Your task to perform on an android device: Open privacy settings Image 0: 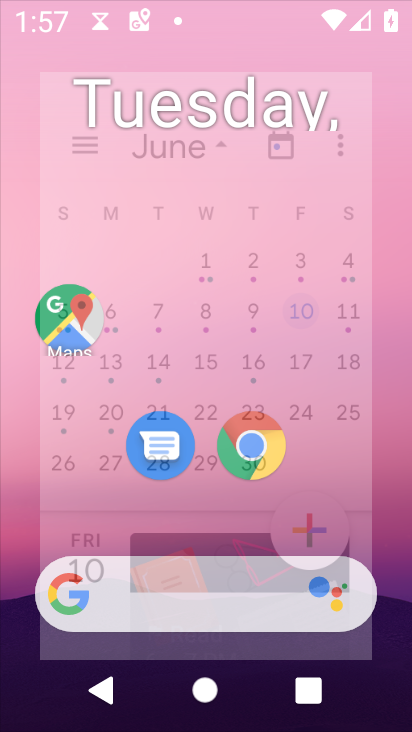
Step 0: drag from (253, 612) to (297, 55)
Your task to perform on an android device: Open privacy settings Image 1: 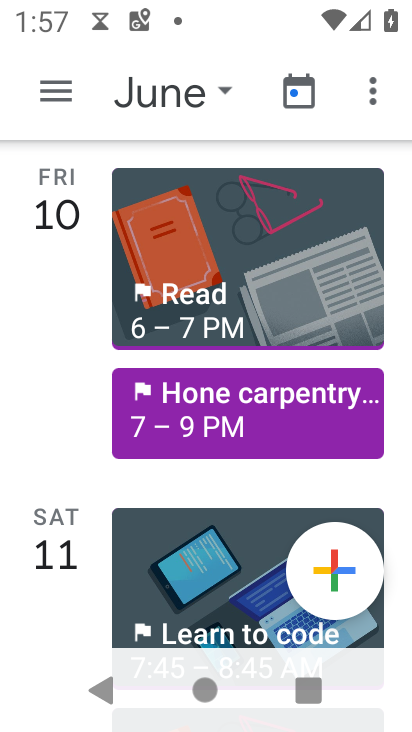
Step 1: press home button
Your task to perform on an android device: Open privacy settings Image 2: 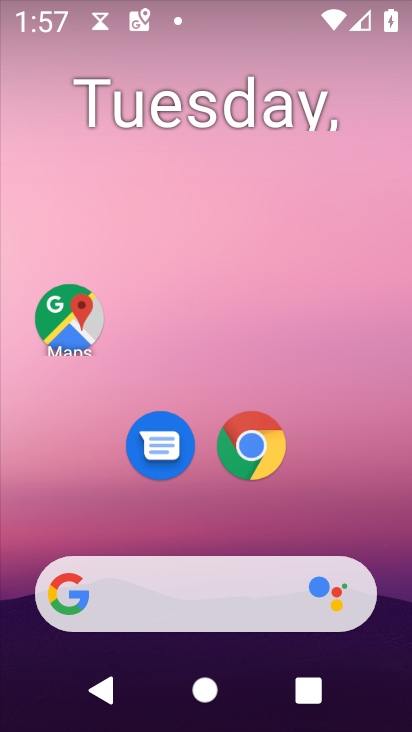
Step 2: drag from (287, 606) to (302, 49)
Your task to perform on an android device: Open privacy settings Image 3: 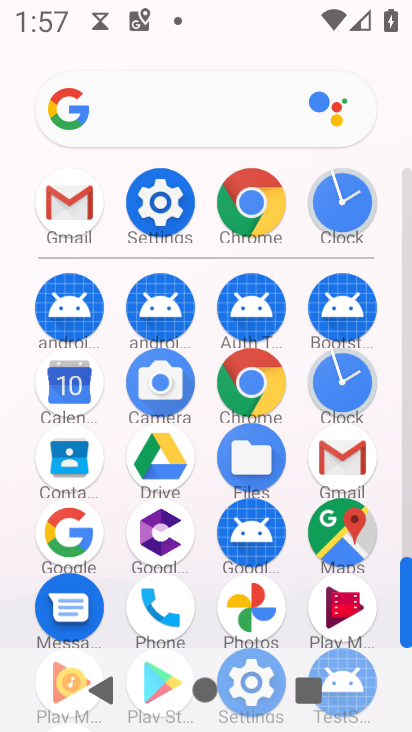
Step 3: drag from (296, 605) to (279, 184)
Your task to perform on an android device: Open privacy settings Image 4: 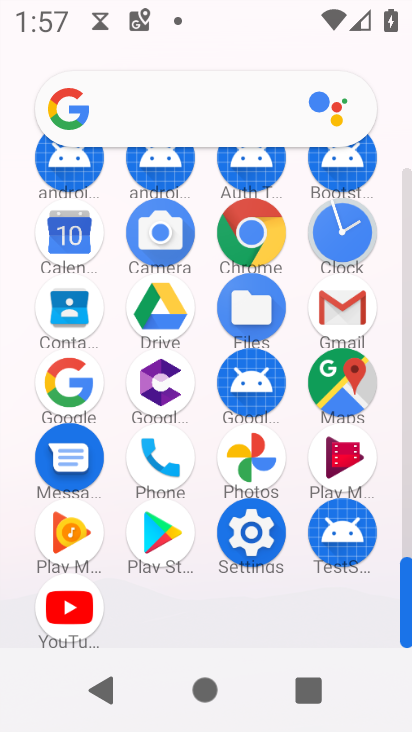
Step 4: click (252, 559)
Your task to perform on an android device: Open privacy settings Image 5: 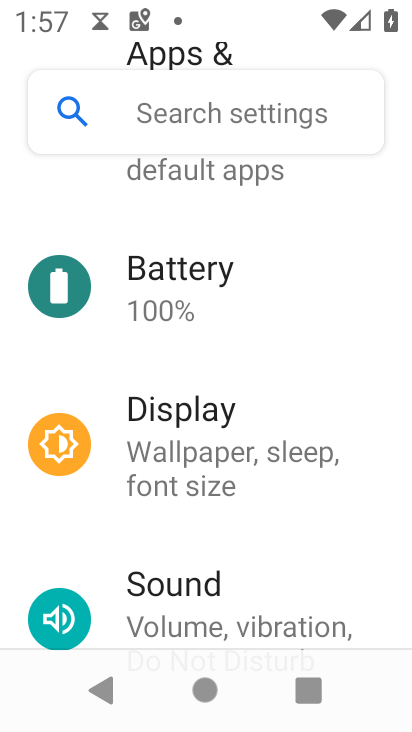
Step 5: drag from (282, 270) to (343, 193)
Your task to perform on an android device: Open privacy settings Image 6: 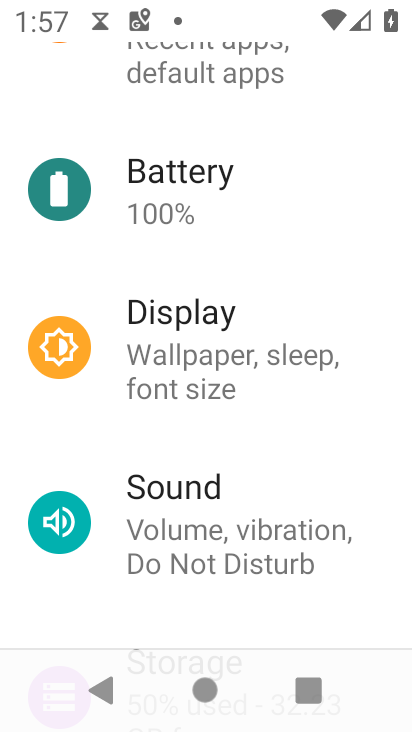
Step 6: drag from (281, 571) to (316, 165)
Your task to perform on an android device: Open privacy settings Image 7: 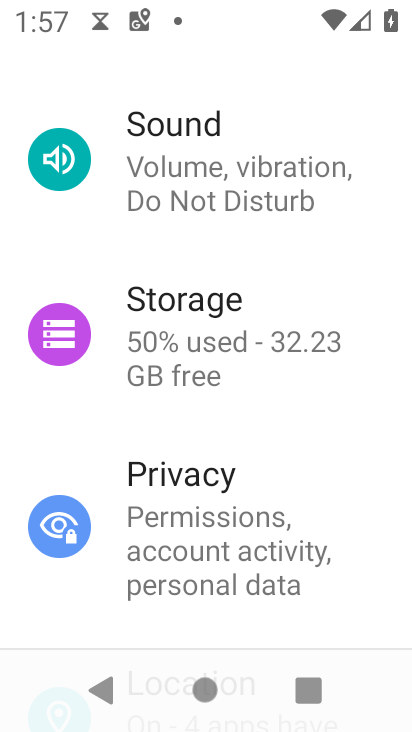
Step 7: click (263, 492)
Your task to perform on an android device: Open privacy settings Image 8: 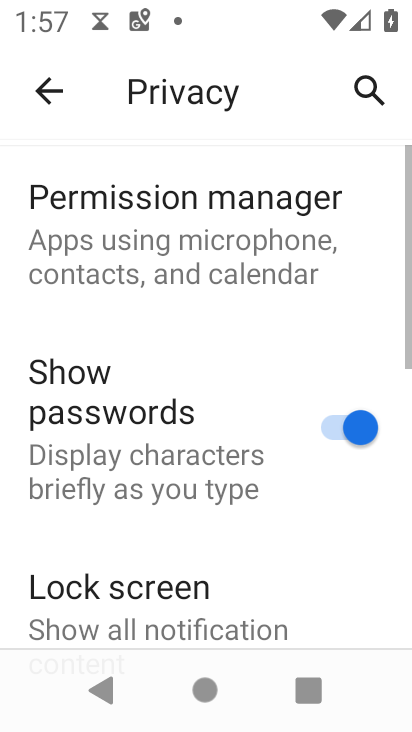
Step 8: task complete